Your task to perform on an android device: What's the weather today? Image 0: 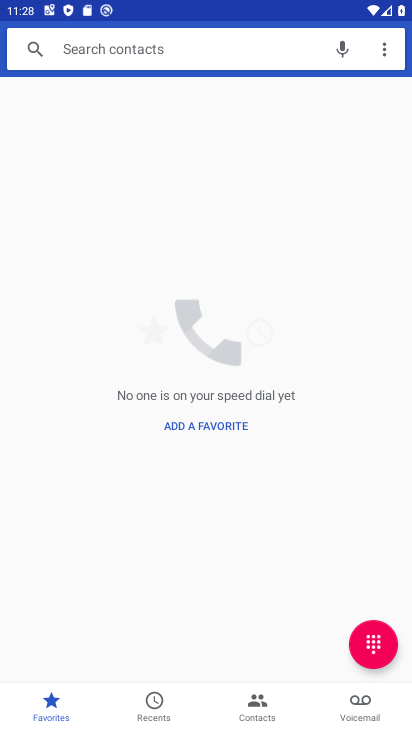
Step 0: press home button
Your task to perform on an android device: What's the weather today? Image 1: 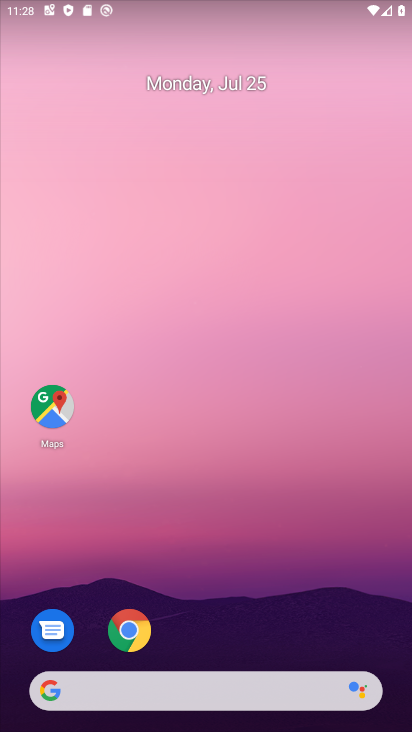
Step 1: click (206, 681)
Your task to perform on an android device: What's the weather today? Image 2: 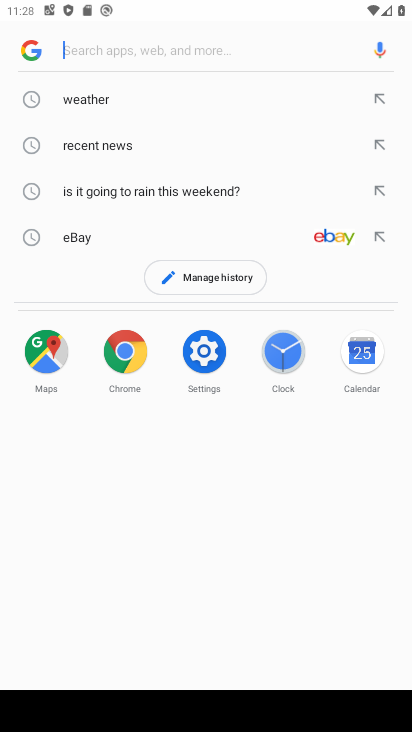
Step 2: click (118, 100)
Your task to perform on an android device: What's the weather today? Image 3: 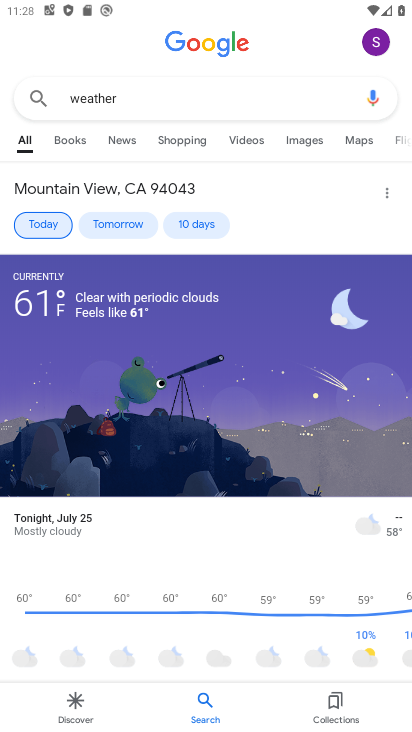
Step 3: task complete